Your task to perform on an android device: Open sound settings Image 0: 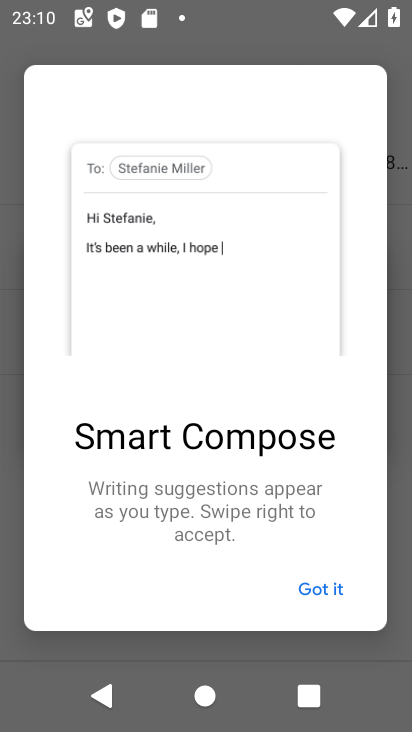
Step 0: press home button
Your task to perform on an android device: Open sound settings Image 1: 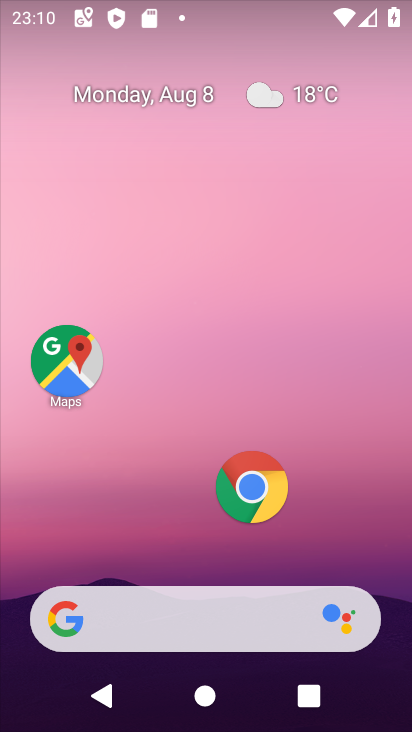
Step 1: drag from (183, 549) to (183, 85)
Your task to perform on an android device: Open sound settings Image 2: 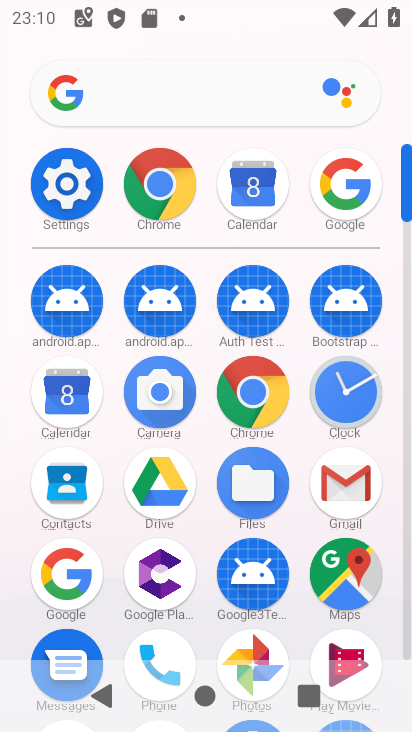
Step 2: click (65, 167)
Your task to perform on an android device: Open sound settings Image 3: 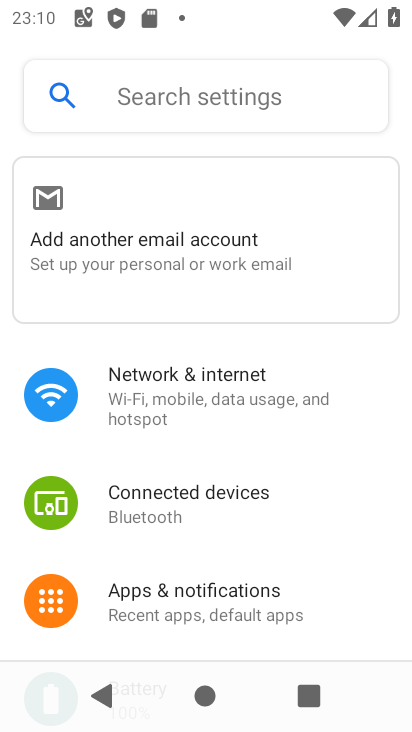
Step 3: drag from (146, 627) to (137, 258)
Your task to perform on an android device: Open sound settings Image 4: 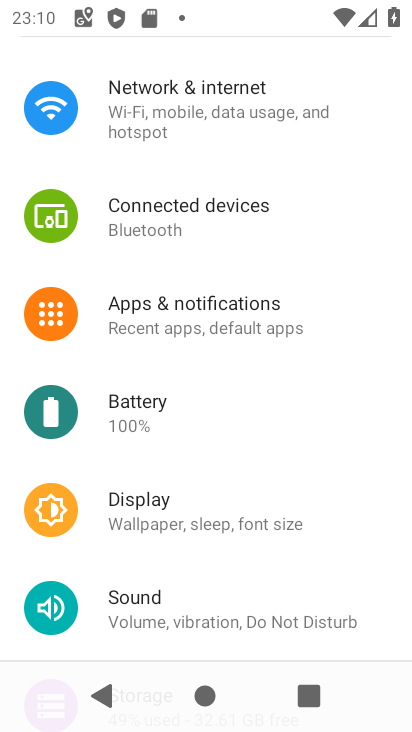
Step 4: drag from (152, 603) to (172, 307)
Your task to perform on an android device: Open sound settings Image 5: 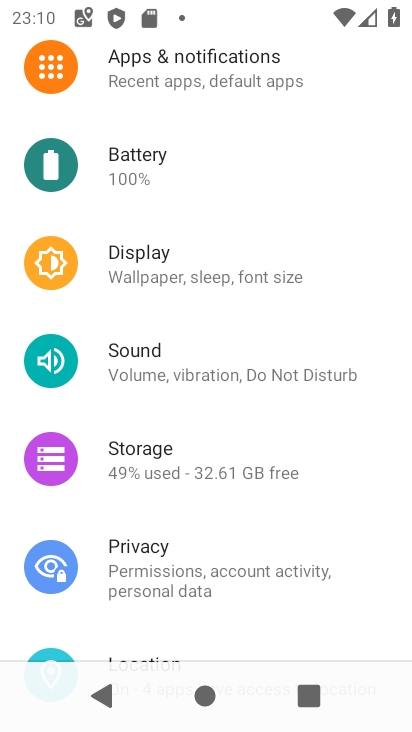
Step 5: click (137, 363)
Your task to perform on an android device: Open sound settings Image 6: 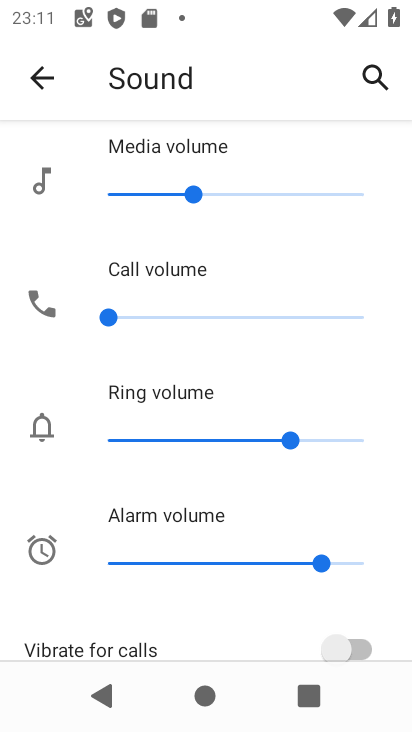
Step 6: task complete